Your task to perform on an android device: turn off wifi Image 0: 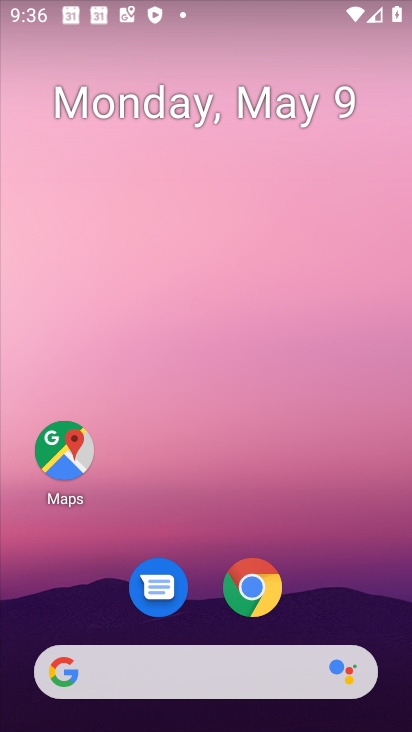
Step 0: drag from (217, 13) to (241, 635)
Your task to perform on an android device: turn off wifi Image 1: 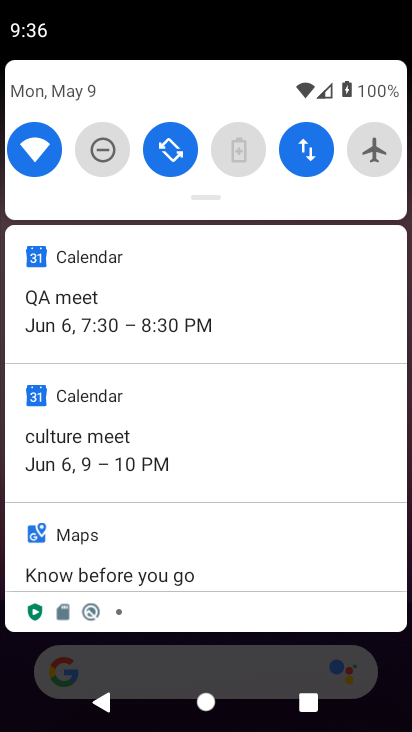
Step 1: click (19, 153)
Your task to perform on an android device: turn off wifi Image 2: 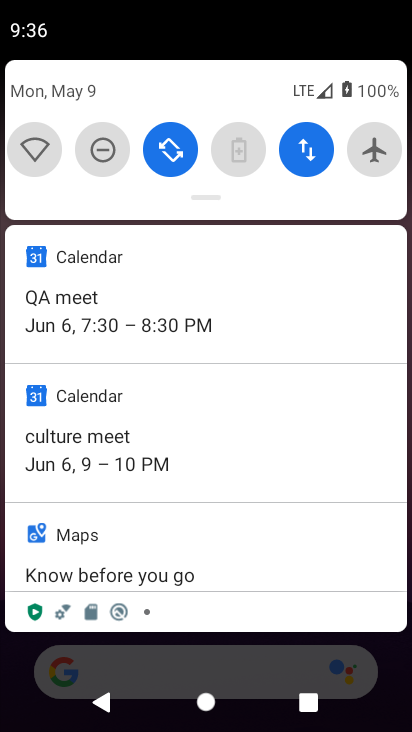
Step 2: task complete